Your task to perform on an android device: Search for Italian restaurants on Maps Image 0: 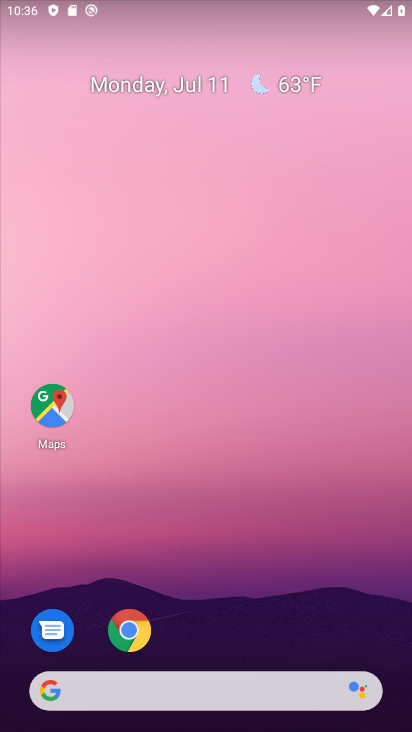
Step 0: click (49, 406)
Your task to perform on an android device: Search for Italian restaurants on Maps Image 1: 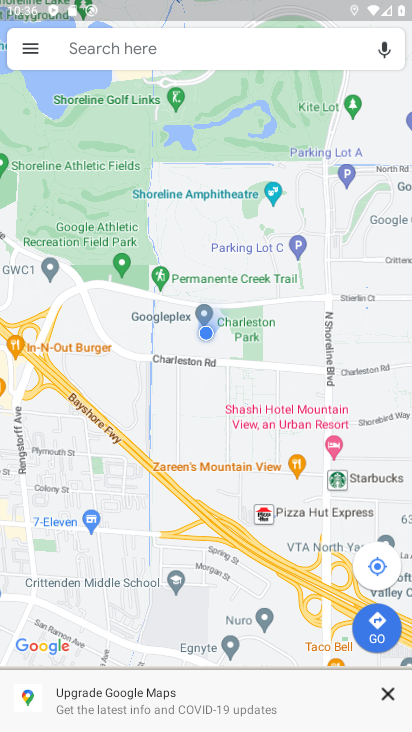
Step 1: click (119, 49)
Your task to perform on an android device: Search for Italian restaurants on Maps Image 2: 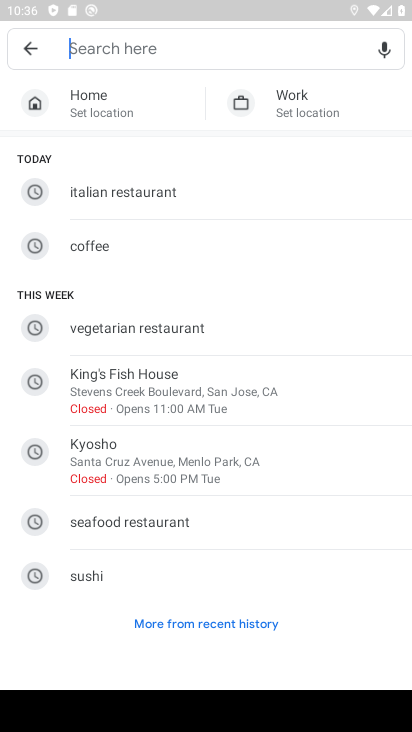
Step 2: type "italian restaurants"
Your task to perform on an android device: Search for Italian restaurants on Maps Image 3: 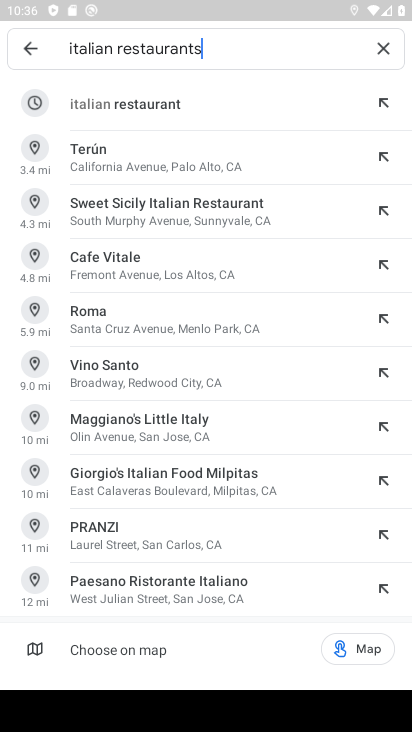
Step 3: click (135, 102)
Your task to perform on an android device: Search for Italian restaurants on Maps Image 4: 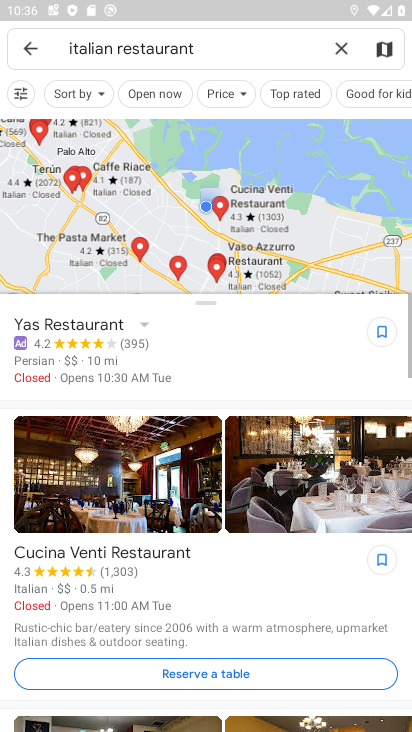
Step 4: task complete